Your task to perform on an android device: Open internet settings Image 0: 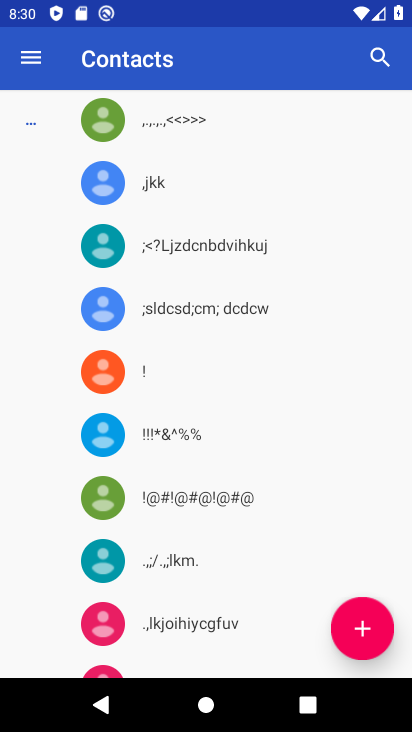
Step 0: press home button
Your task to perform on an android device: Open internet settings Image 1: 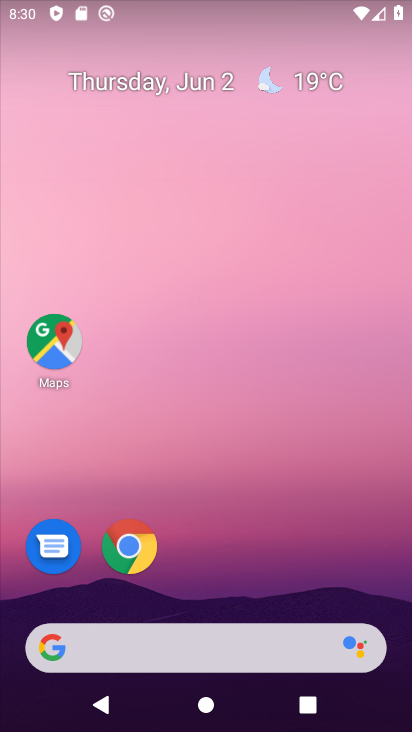
Step 1: drag from (240, 600) to (285, 33)
Your task to perform on an android device: Open internet settings Image 2: 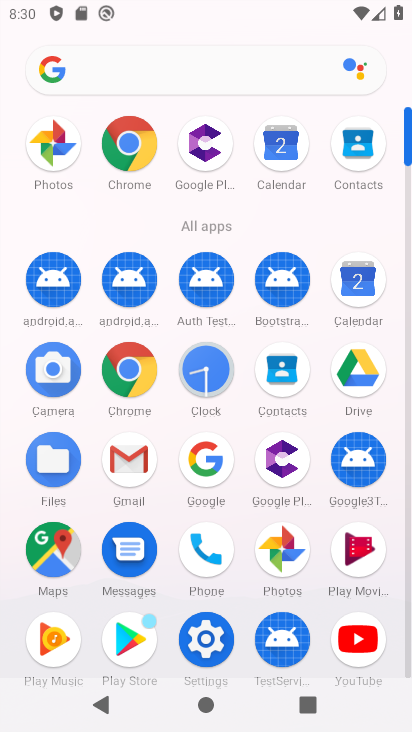
Step 2: click (209, 635)
Your task to perform on an android device: Open internet settings Image 3: 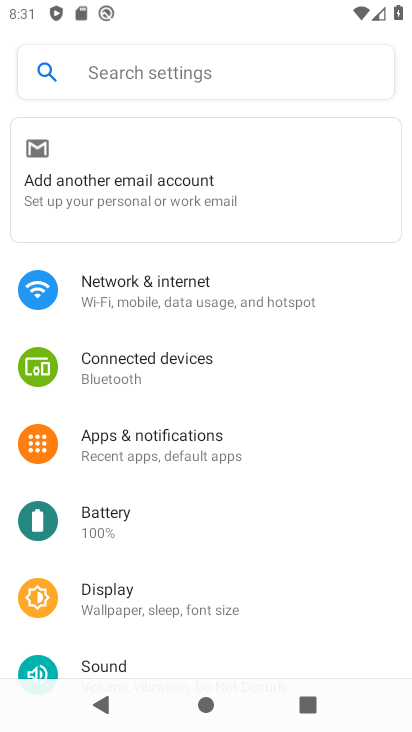
Step 3: click (224, 303)
Your task to perform on an android device: Open internet settings Image 4: 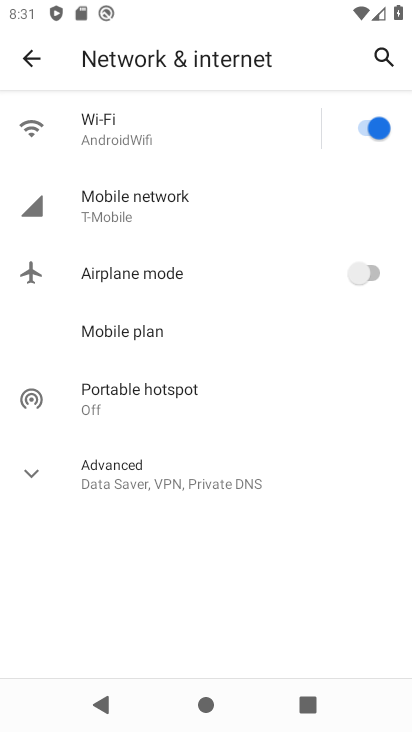
Step 4: click (118, 201)
Your task to perform on an android device: Open internet settings Image 5: 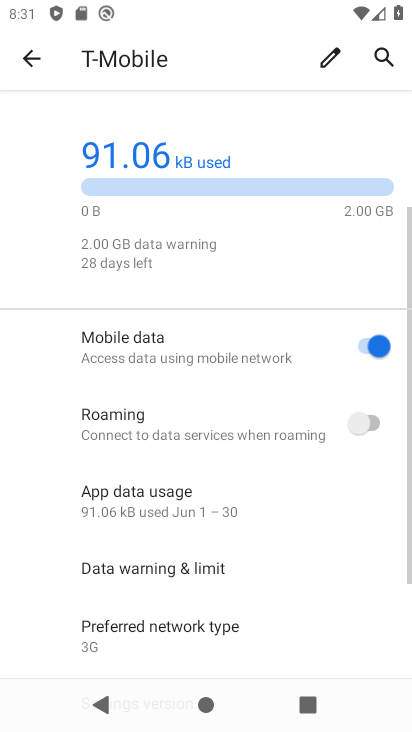
Step 5: task complete